Your task to perform on an android device: Go to settings Image 0: 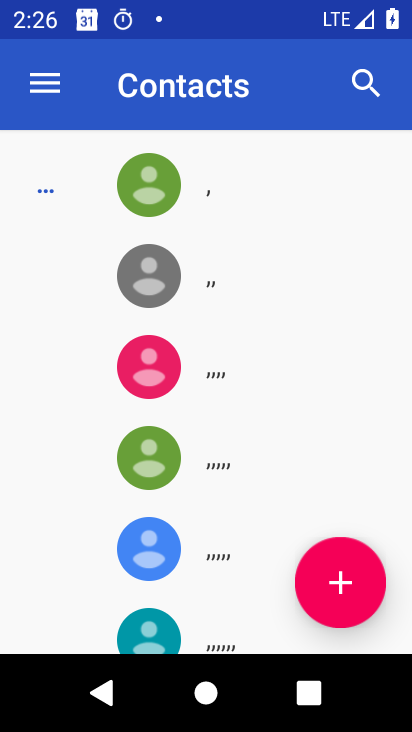
Step 0: press home button
Your task to perform on an android device: Go to settings Image 1: 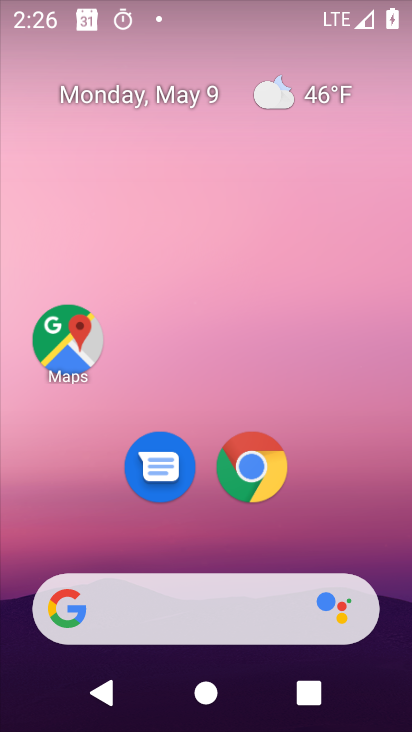
Step 1: drag from (329, 502) to (297, 24)
Your task to perform on an android device: Go to settings Image 2: 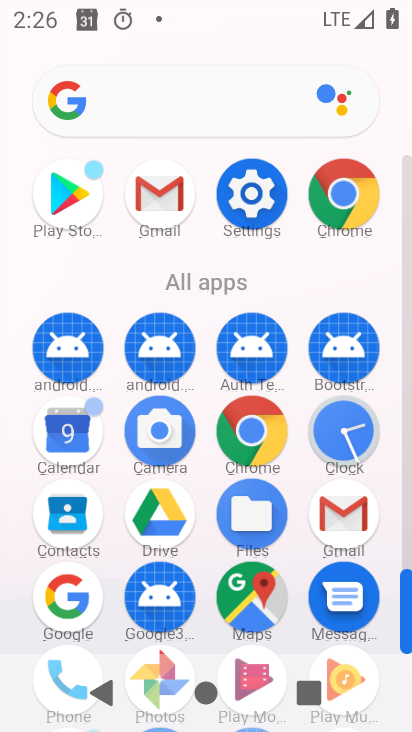
Step 2: click (257, 182)
Your task to perform on an android device: Go to settings Image 3: 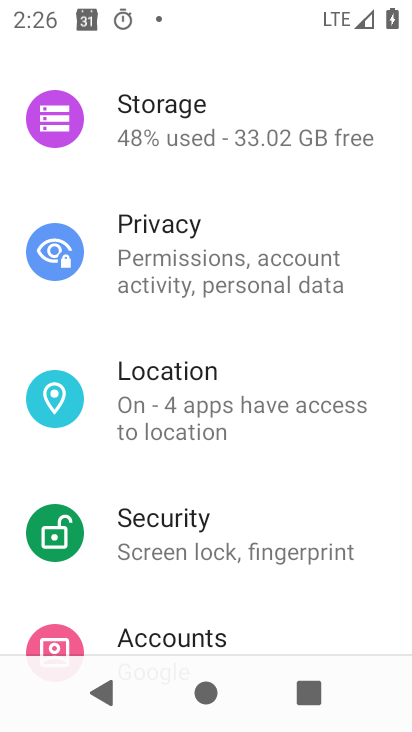
Step 3: task complete